Your task to perform on an android device: Toggle the flashlight Image 0: 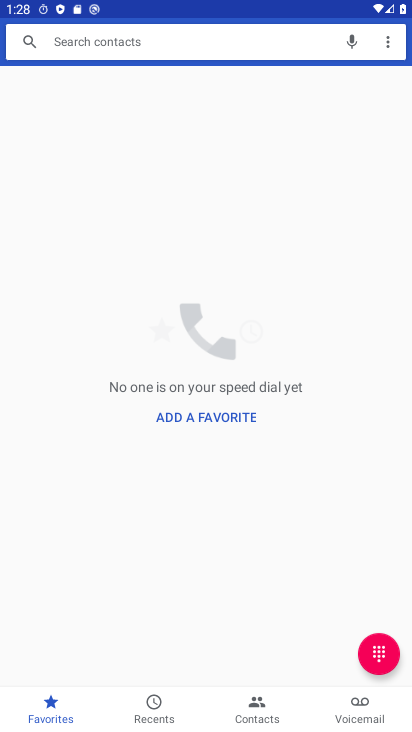
Step 0: drag from (265, 14) to (180, 460)
Your task to perform on an android device: Toggle the flashlight Image 1: 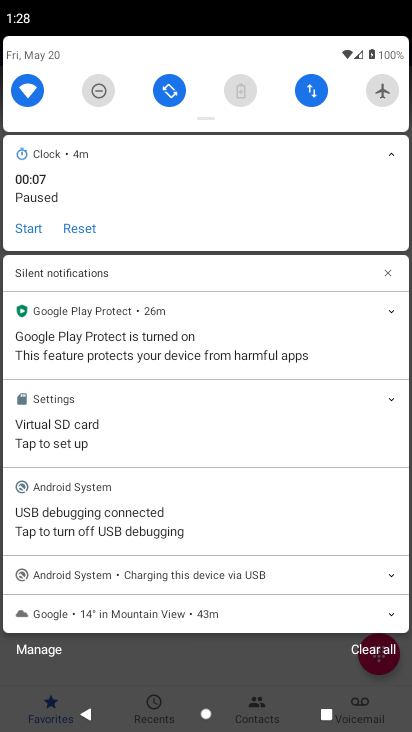
Step 1: drag from (126, 52) to (110, 582)
Your task to perform on an android device: Toggle the flashlight Image 2: 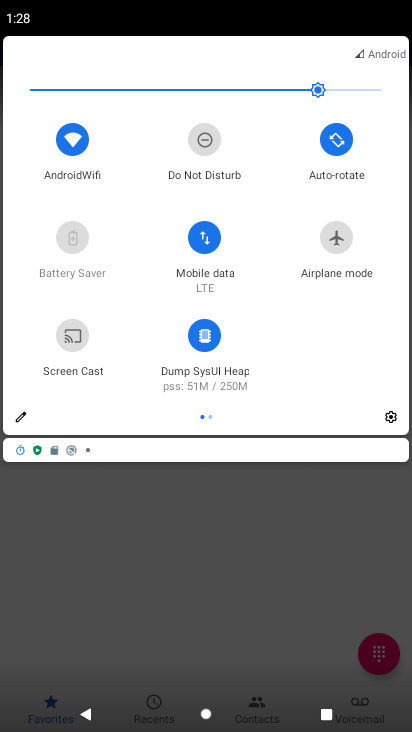
Step 2: click (383, 420)
Your task to perform on an android device: Toggle the flashlight Image 3: 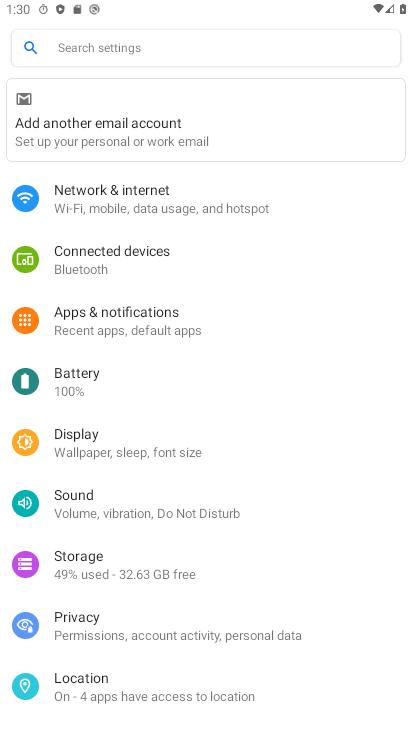
Step 3: task complete